Your task to perform on an android device: Open Google Image 0: 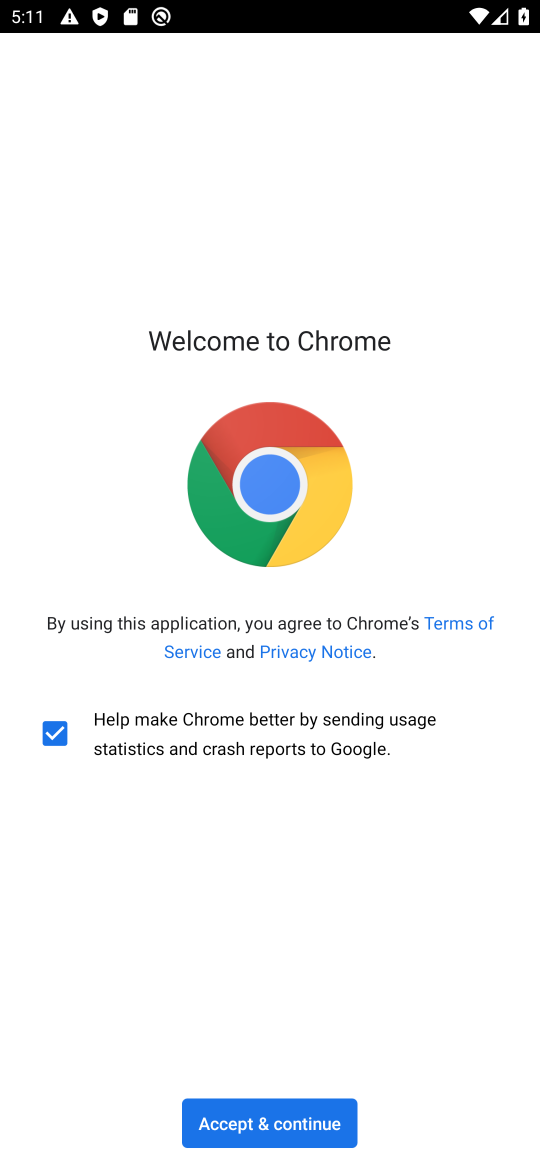
Step 0: press home button
Your task to perform on an android device: Open Google Image 1: 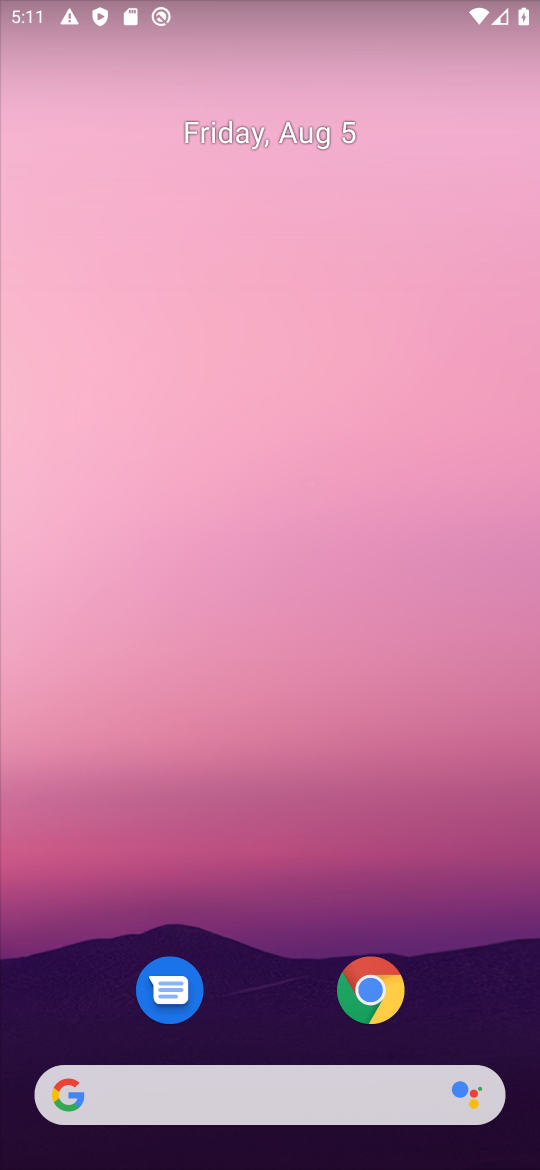
Step 1: drag from (269, 888) to (263, 622)
Your task to perform on an android device: Open Google Image 2: 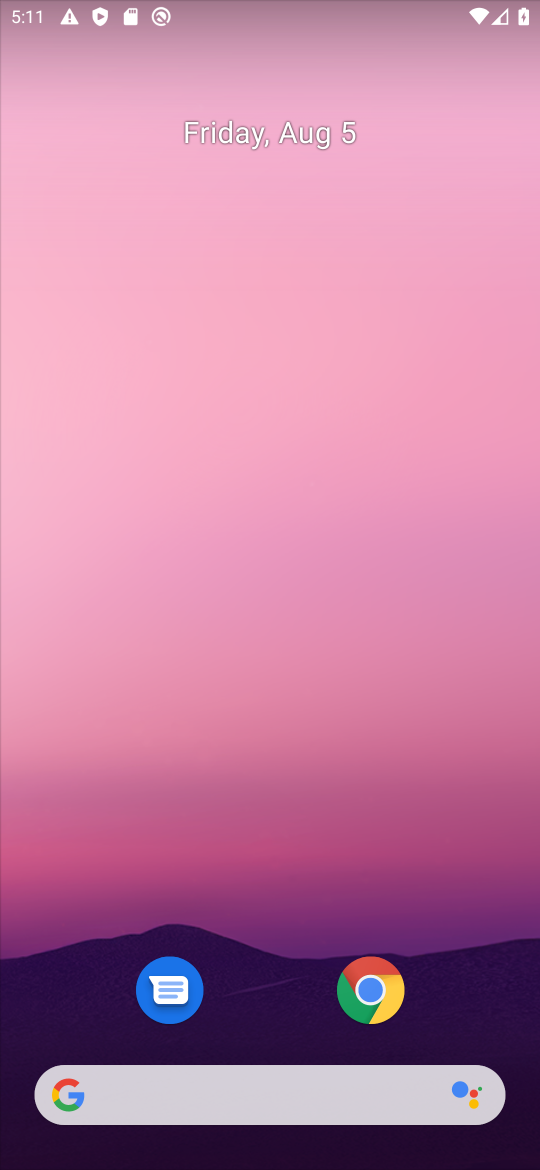
Step 2: drag from (218, 1055) to (267, 347)
Your task to perform on an android device: Open Google Image 3: 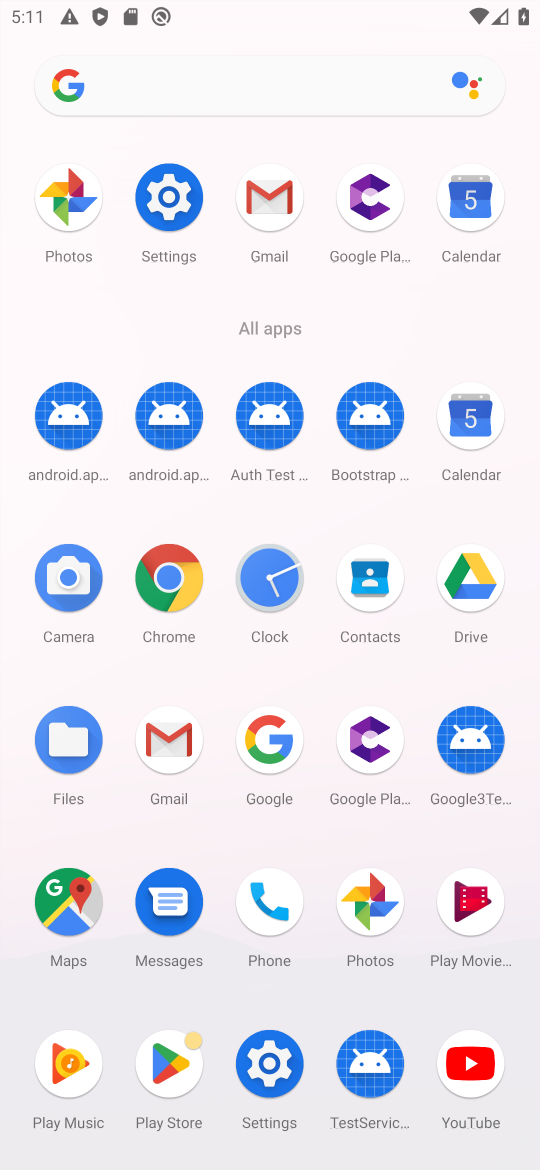
Step 3: click (276, 726)
Your task to perform on an android device: Open Google Image 4: 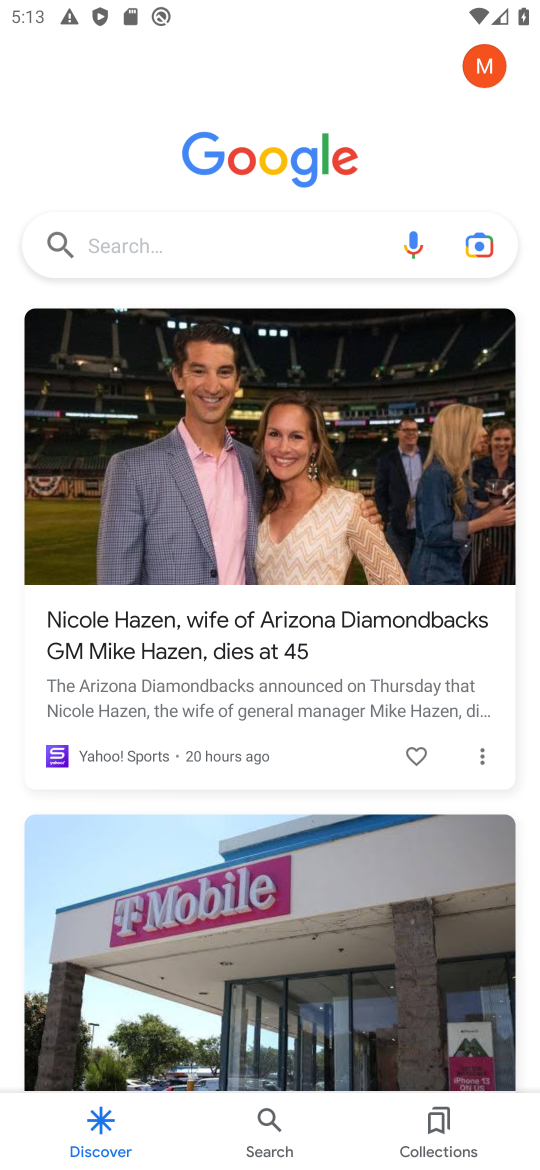
Step 4: task complete